Your task to perform on an android device: change the upload size in google photos Image 0: 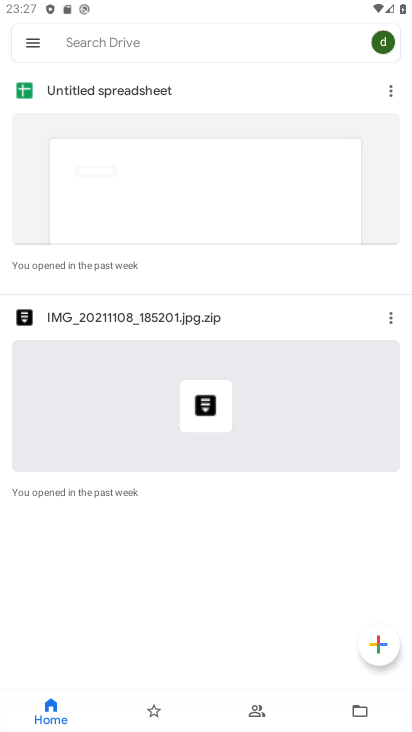
Step 0: press home button
Your task to perform on an android device: change the upload size in google photos Image 1: 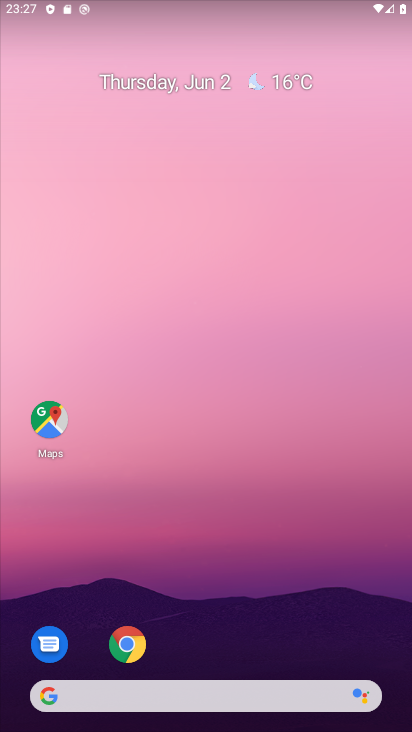
Step 1: drag from (190, 631) to (259, 225)
Your task to perform on an android device: change the upload size in google photos Image 2: 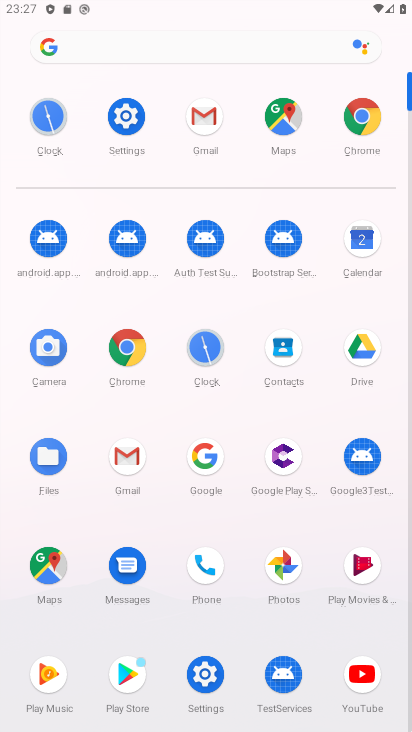
Step 2: click (297, 571)
Your task to perform on an android device: change the upload size in google photos Image 3: 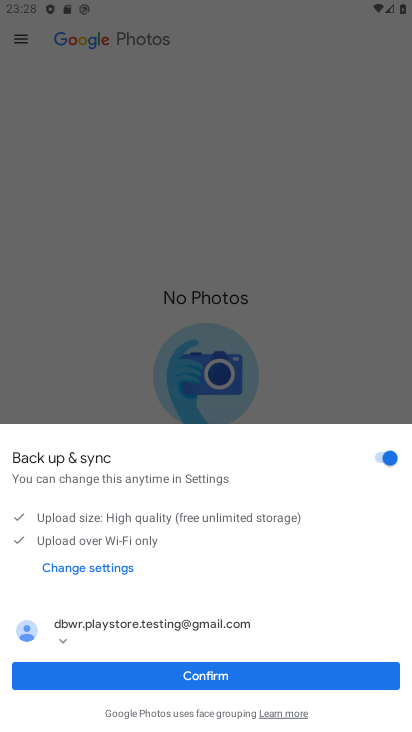
Step 3: click (110, 684)
Your task to perform on an android device: change the upload size in google photos Image 4: 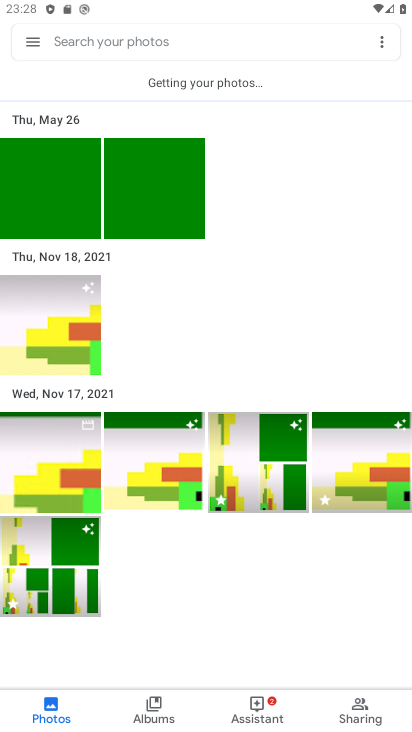
Step 4: click (35, 30)
Your task to perform on an android device: change the upload size in google photos Image 5: 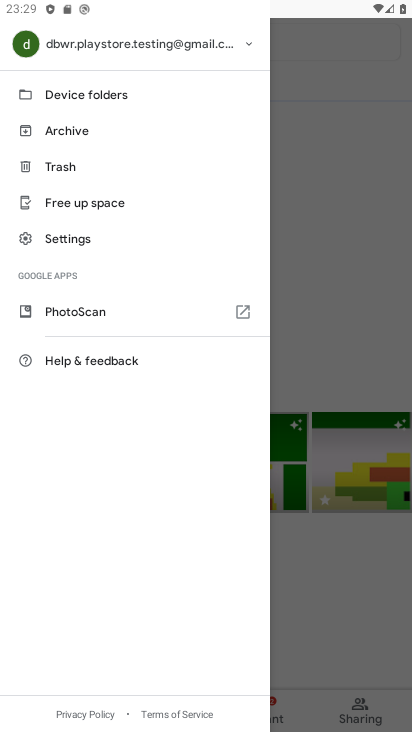
Step 5: click (68, 239)
Your task to perform on an android device: change the upload size in google photos Image 6: 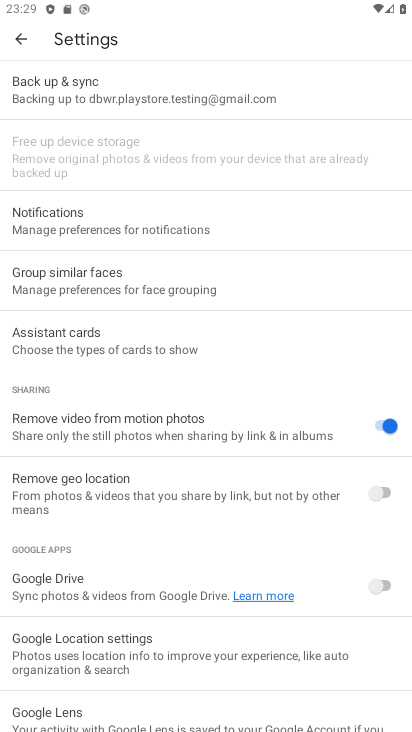
Step 6: click (99, 89)
Your task to perform on an android device: change the upload size in google photos Image 7: 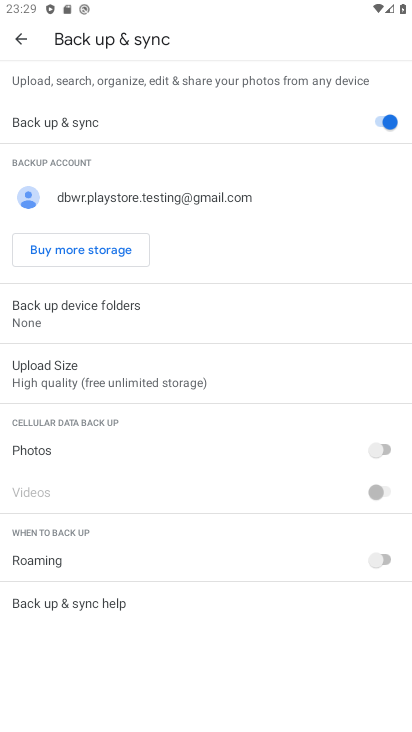
Step 7: click (63, 375)
Your task to perform on an android device: change the upload size in google photos Image 8: 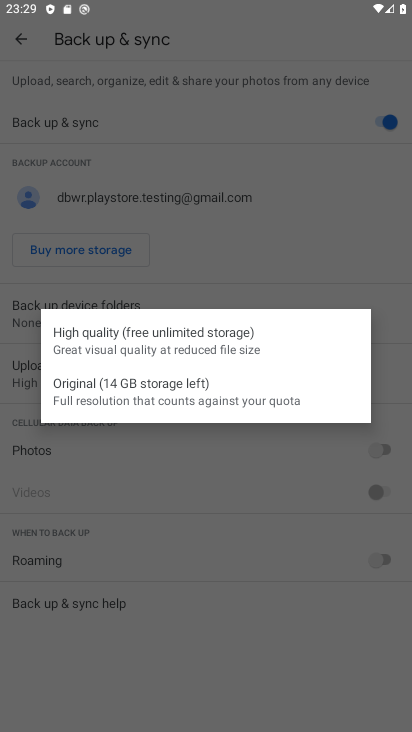
Step 8: click (139, 379)
Your task to perform on an android device: change the upload size in google photos Image 9: 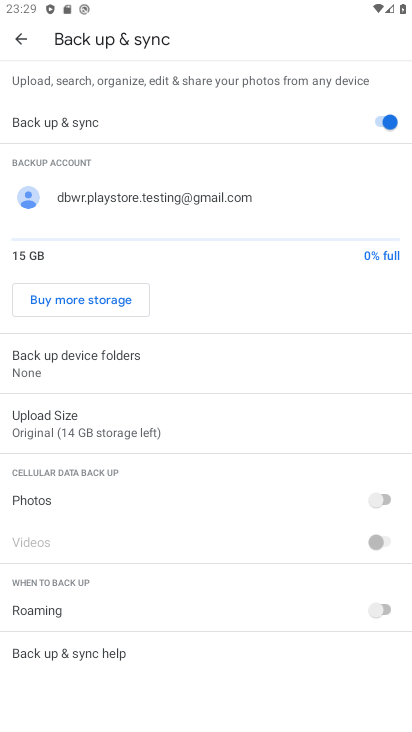
Step 9: task complete